Your task to perform on an android device: turn off data saver in the chrome app Image 0: 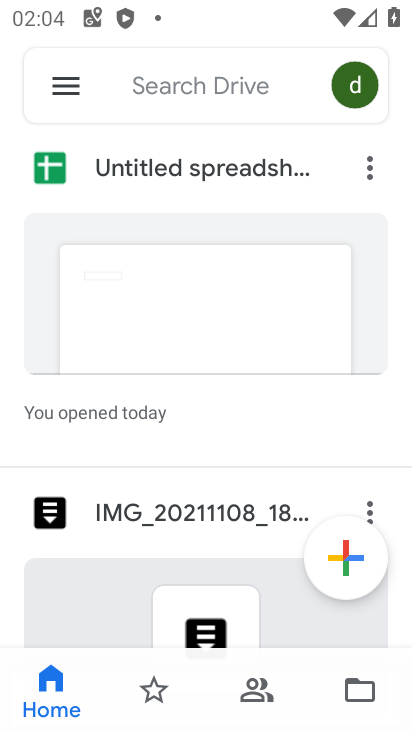
Step 0: press home button
Your task to perform on an android device: turn off data saver in the chrome app Image 1: 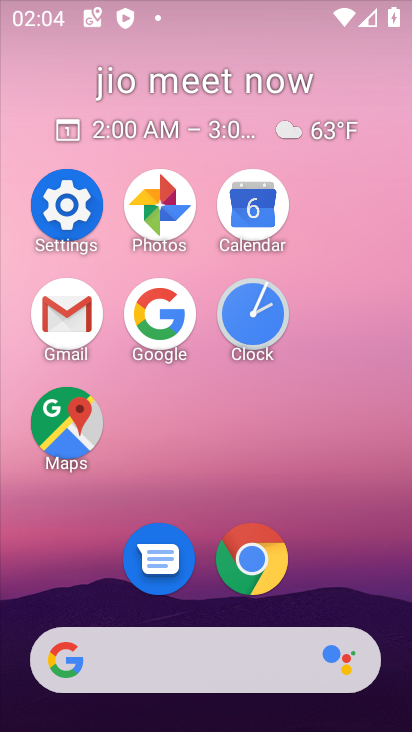
Step 1: click (268, 555)
Your task to perform on an android device: turn off data saver in the chrome app Image 2: 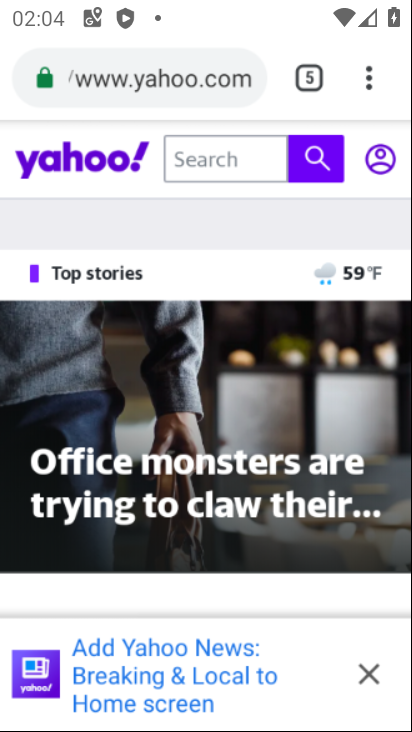
Step 2: click (372, 74)
Your task to perform on an android device: turn off data saver in the chrome app Image 3: 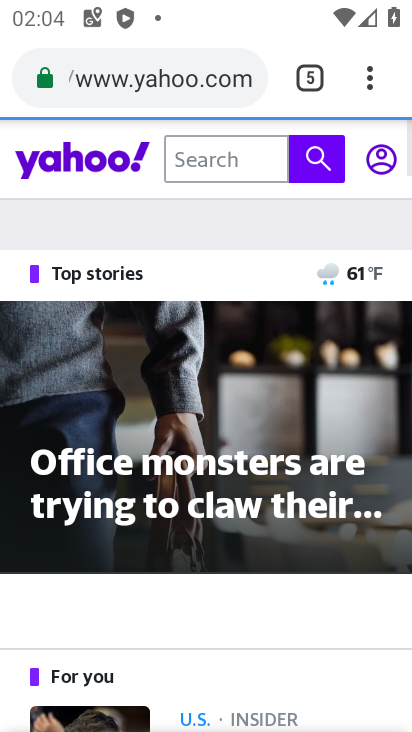
Step 3: click (382, 67)
Your task to perform on an android device: turn off data saver in the chrome app Image 4: 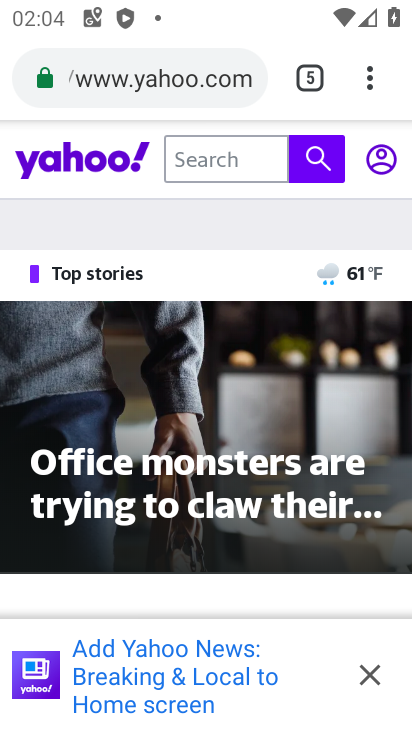
Step 4: click (369, 80)
Your task to perform on an android device: turn off data saver in the chrome app Image 5: 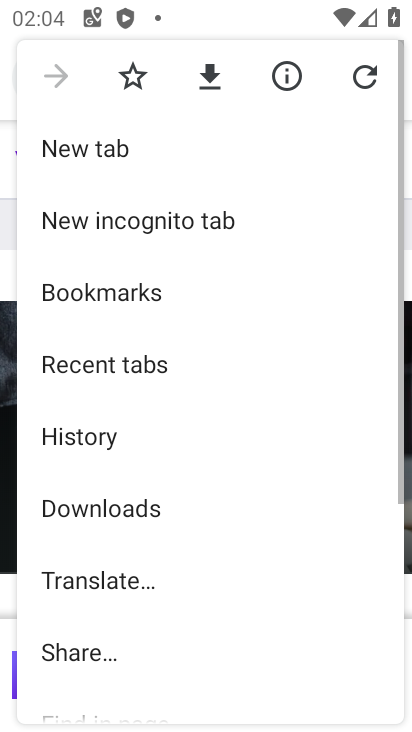
Step 5: drag from (232, 483) to (272, 126)
Your task to perform on an android device: turn off data saver in the chrome app Image 6: 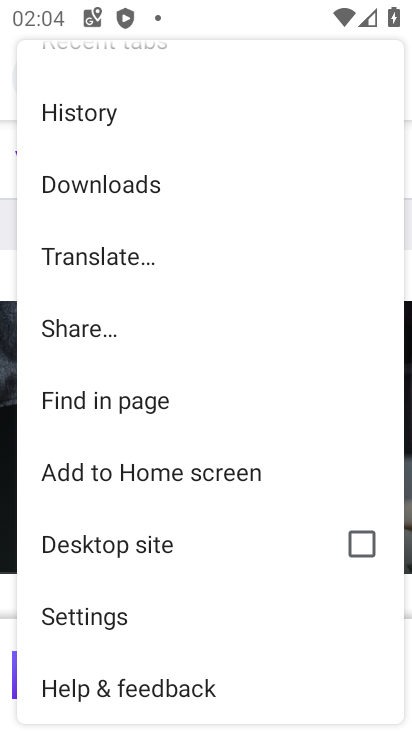
Step 6: click (152, 610)
Your task to perform on an android device: turn off data saver in the chrome app Image 7: 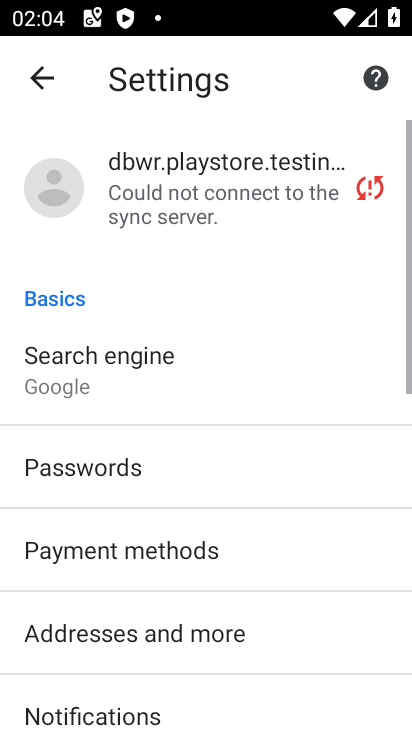
Step 7: drag from (149, 608) to (221, 186)
Your task to perform on an android device: turn off data saver in the chrome app Image 8: 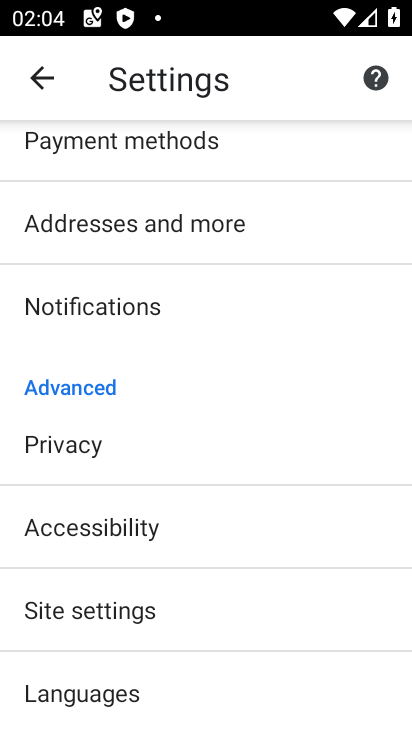
Step 8: drag from (133, 567) to (186, 307)
Your task to perform on an android device: turn off data saver in the chrome app Image 9: 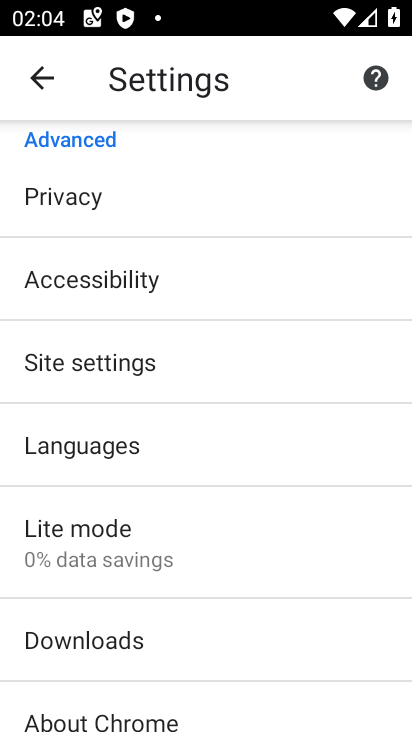
Step 9: click (134, 581)
Your task to perform on an android device: turn off data saver in the chrome app Image 10: 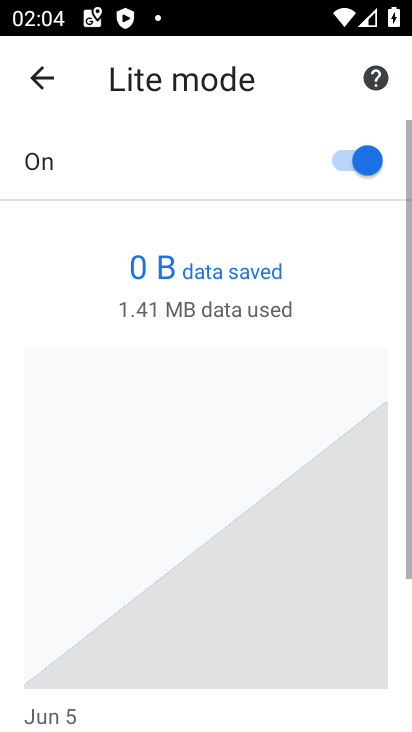
Step 10: click (364, 176)
Your task to perform on an android device: turn off data saver in the chrome app Image 11: 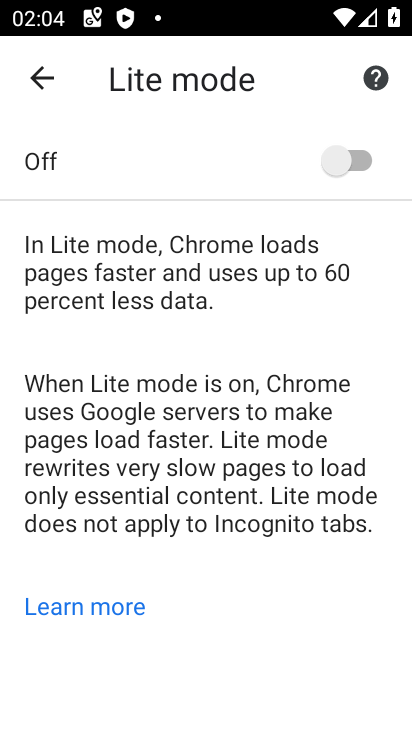
Step 11: task complete